Your task to perform on an android device: set the stopwatch Image 0: 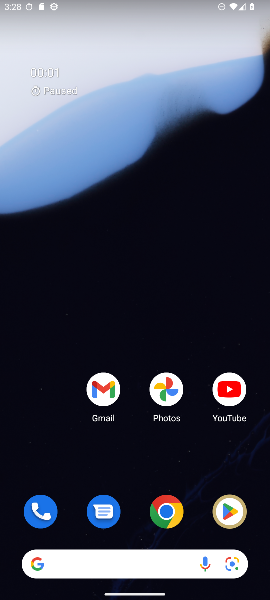
Step 0: drag from (130, 459) to (140, 51)
Your task to perform on an android device: set the stopwatch Image 1: 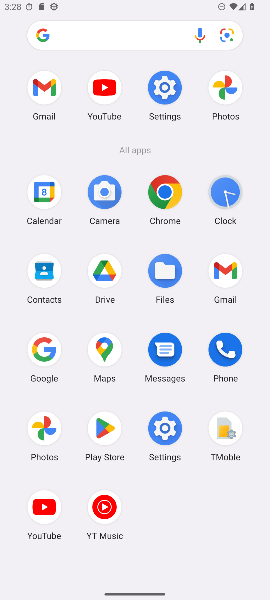
Step 1: click (226, 178)
Your task to perform on an android device: set the stopwatch Image 2: 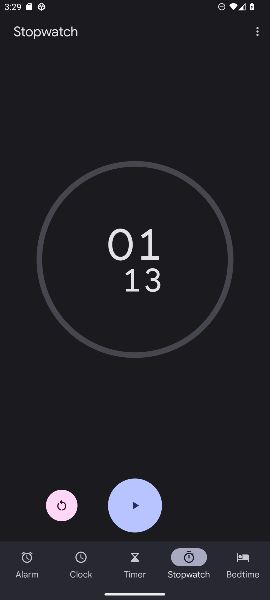
Step 2: task complete